Your task to perform on an android device: Search for seafood restaurants on Google Maps Image 0: 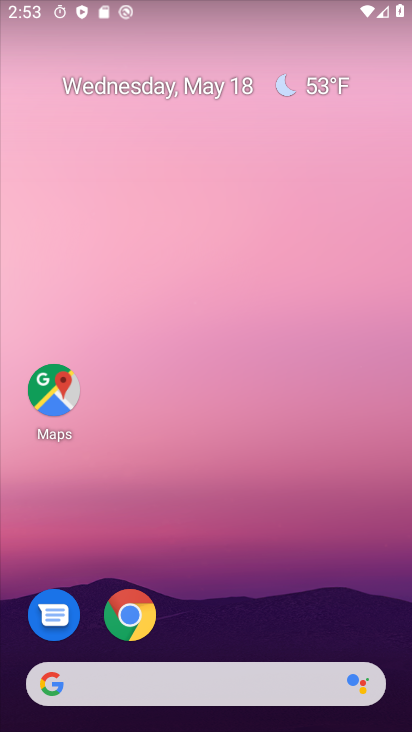
Step 0: click (42, 396)
Your task to perform on an android device: Search for seafood restaurants on Google Maps Image 1: 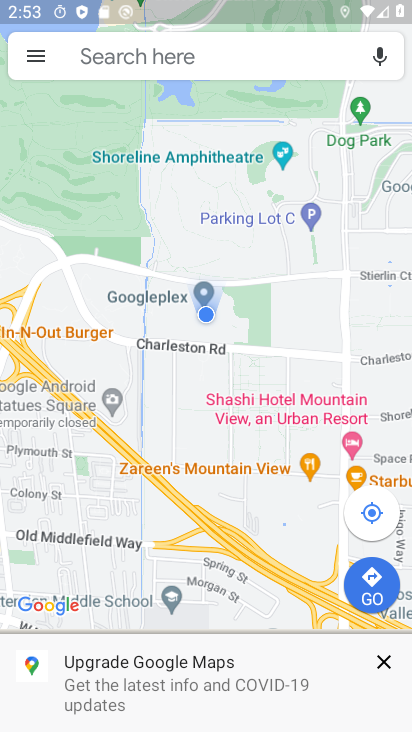
Step 1: click (203, 60)
Your task to perform on an android device: Search for seafood restaurants on Google Maps Image 2: 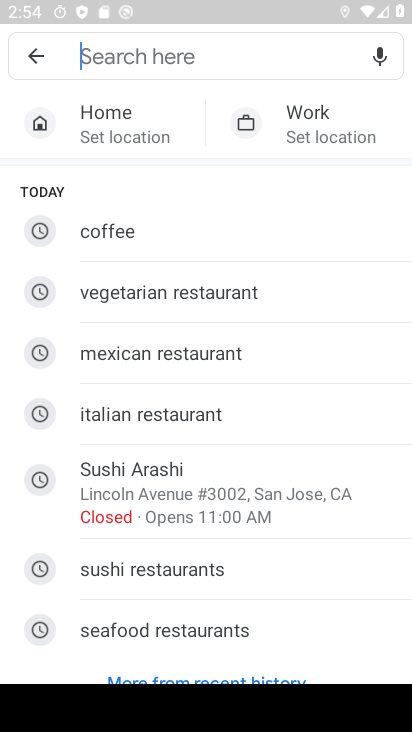
Step 2: type "seafood restaurants"
Your task to perform on an android device: Search for seafood restaurants on Google Maps Image 3: 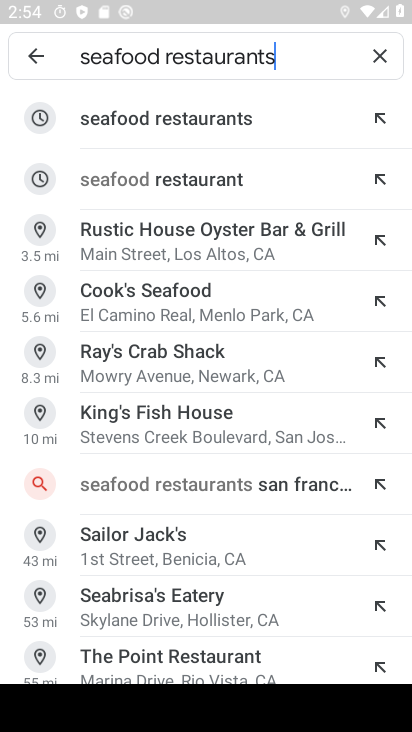
Step 3: click (225, 130)
Your task to perform on an android device: Search for seafood restaurants on Google Maps Image 4: 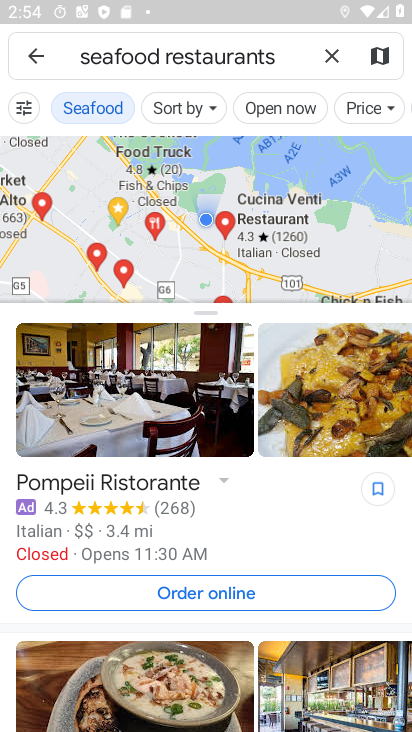
Step 4: task complete